Your task to perform on an android device: Is it going to rain this weekend? Image 0: 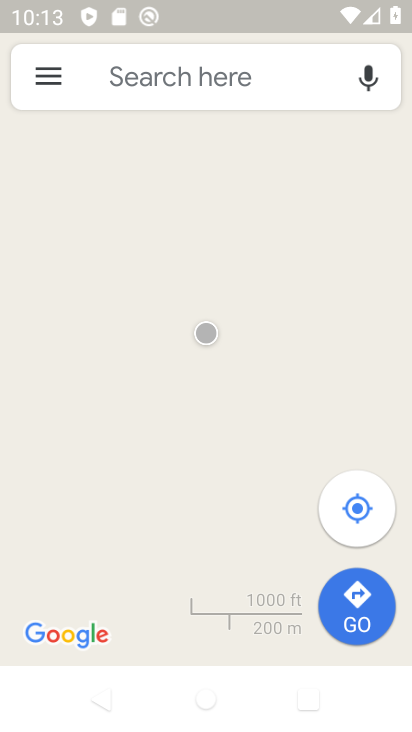
Step 0: press home button
Your task to perform on an android device: Is it going to rain this weekend? Image 1: 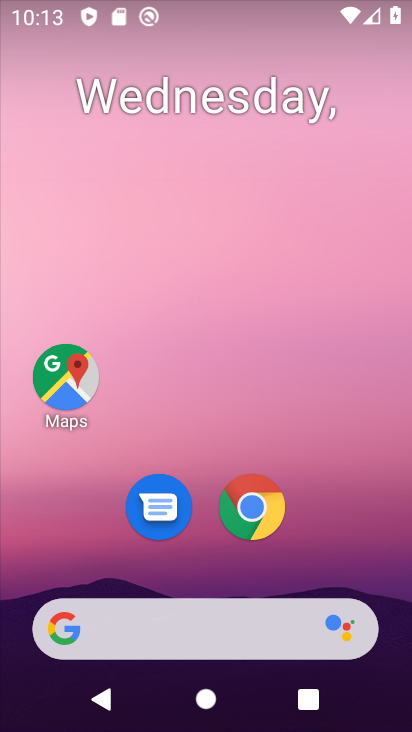
Step 1: click (264, 508)
Your task to perform on an android device: Is it going to rain this weekend? Image 2: 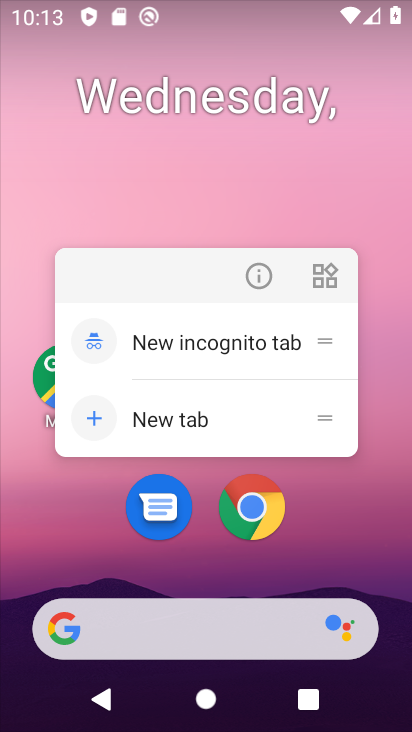
Step 2: click (262, 511)
Your task to perform on an android device: Is it going to rain this weekend? Image 3: 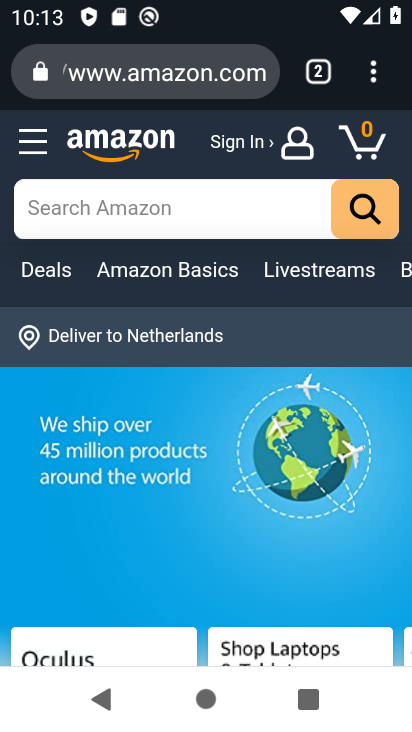
Step 3: click (357, 80)
Your task to perform on an android device: Is it going to rain this weekend? Image 4: 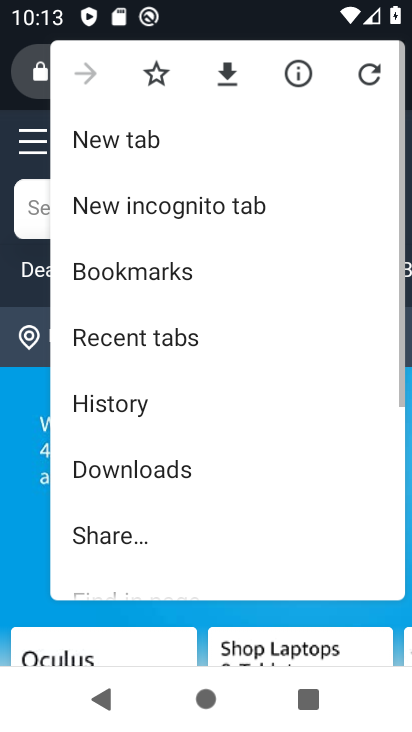
Step 4: click (115, 140)
Your task to perform on an android device: Is it going to rain this weekend? Image 5: 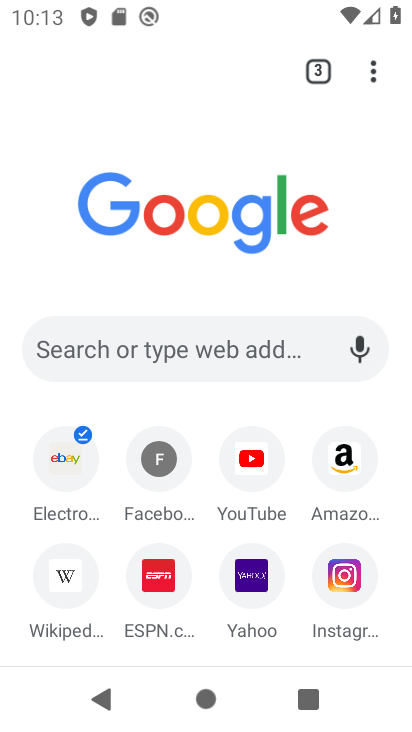
Step 5: click (152, 308)
Your task to perform on an android device: Is it going to rain this weekend? Image 6: 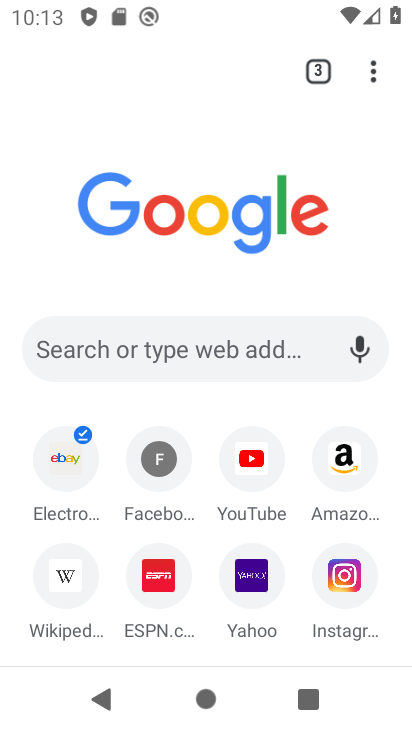
Step 6: click (188, 359)
Your task to perform on an android device: Is it going to rain this weekend? Image 7: 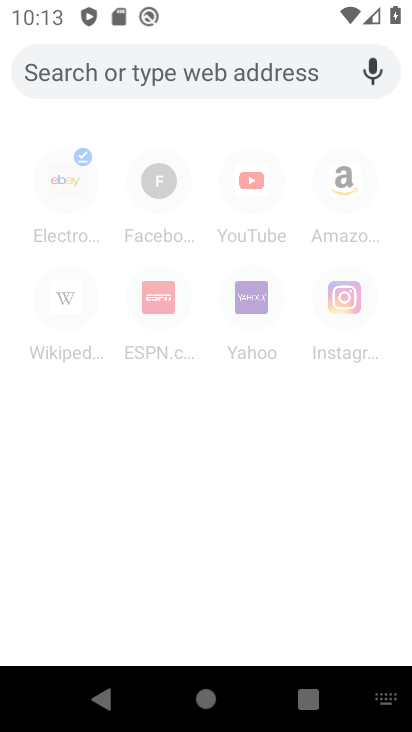
Step 7: type "Is it going to rain this weekend?"
Your task to perform on an android device: Is it going to rain this weekend? Image 8: 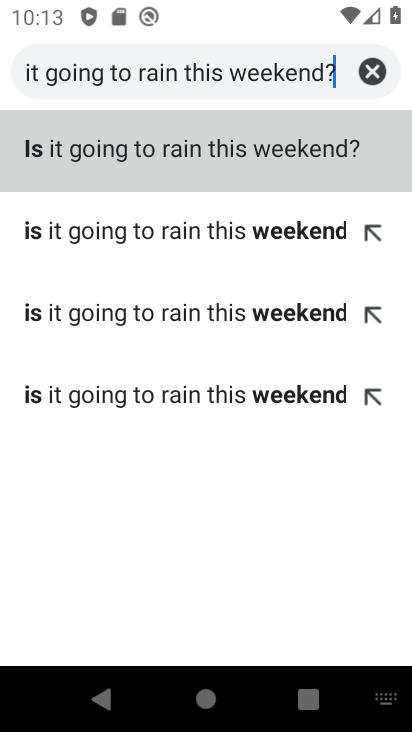
Step 8: click (227, 155)
Your task to perform on an android device: Is it going to rain this weekend? Image 9: 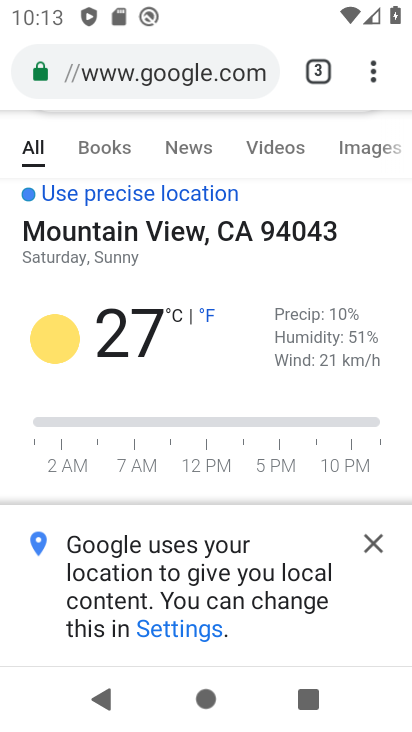
Step 9: task complete